Your task to perform on an android device: Do I have any events tomorrow? Image 0: 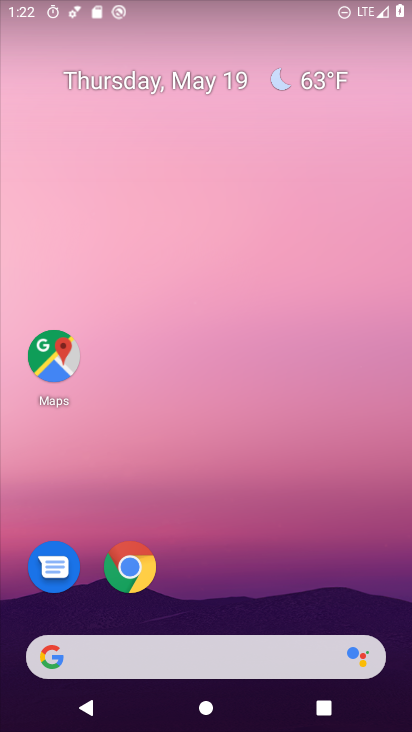
Step 0: press home button
Your task to perform on an android device: Do I have any events tomorrow? Image 1: 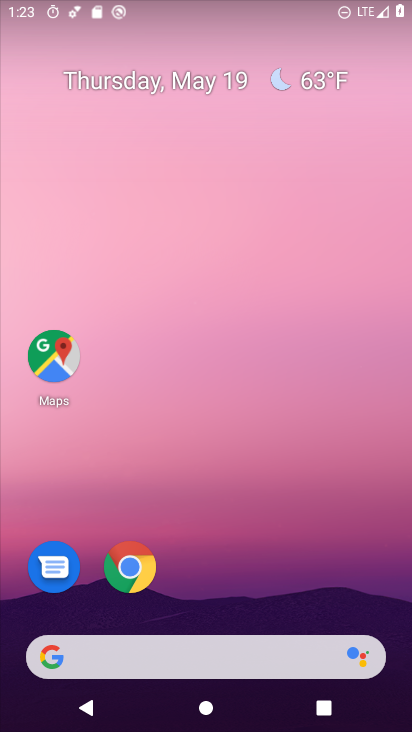
Step 1: drag from (165, 657) to (285, 253)
Your task to perform on an android device: Do I have any events tomorrow? Image 2: 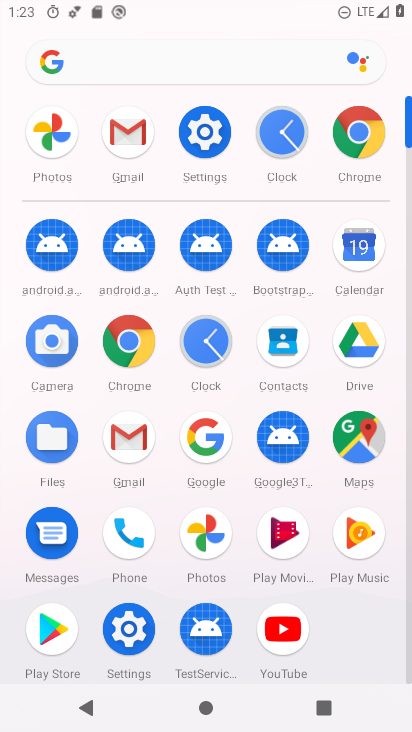
Step 2: click (359, 251)
Your task to perform on an android device: Do I have any events tomorrow? Image 3: 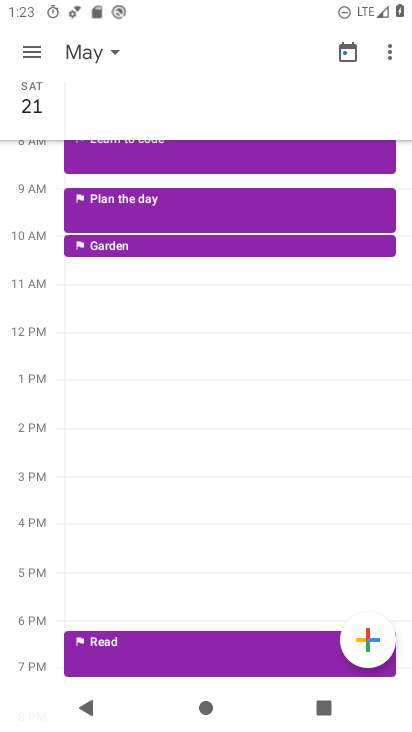
Step 3: click (82, 49)
Your task to perform on an android device: Do I have any events tomorrow? Image 4: 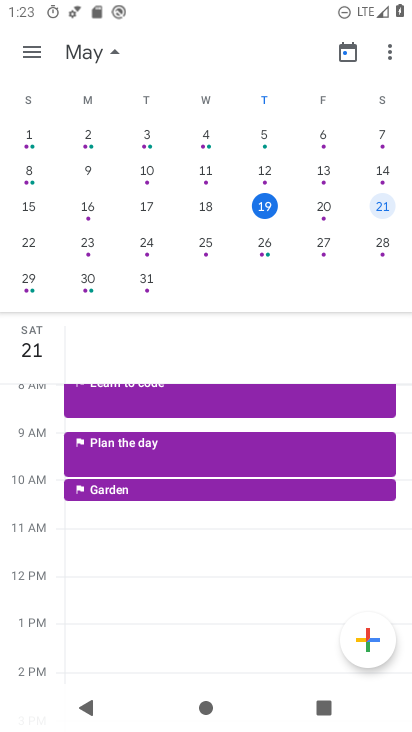
Step 4: click (320, 215)
Your task to perform on an android device: Do I have any events tomorrow? Image 5: 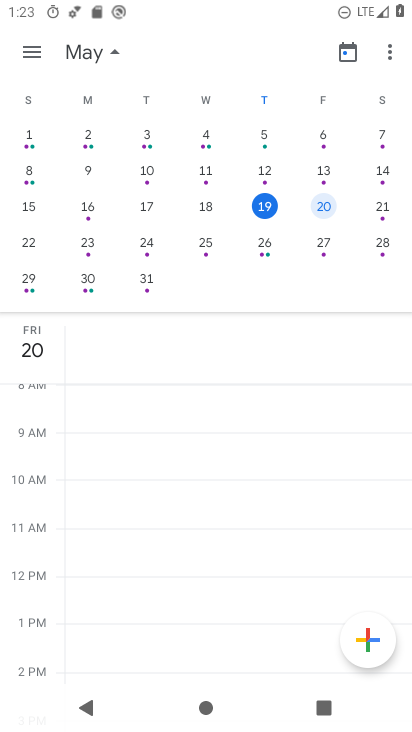
Step 5: click (36, 48)
Your task to perform on an android device: Do I have any events tomorrow? Image 6: 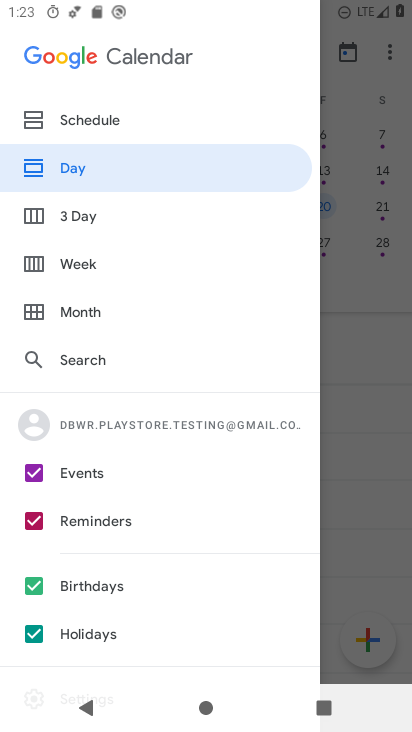
Step 6: click (111, 121)
Your task to perform on an android device: Do I have any events tomorrow? Image 7: 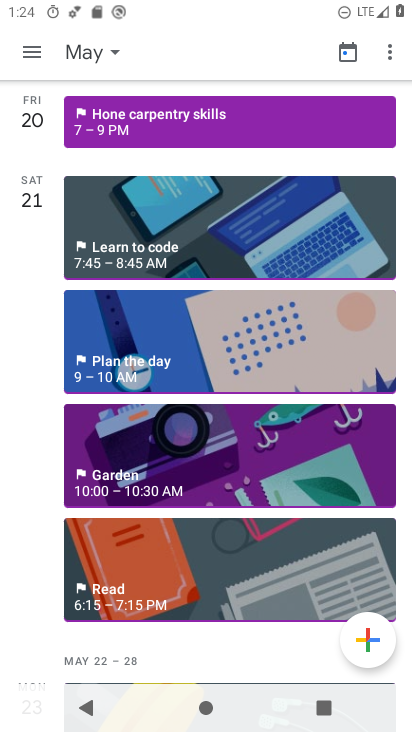
Step 7: click (175, 119)
Your task to perform on an android device: Do I have any events tomorrow? Image 8: 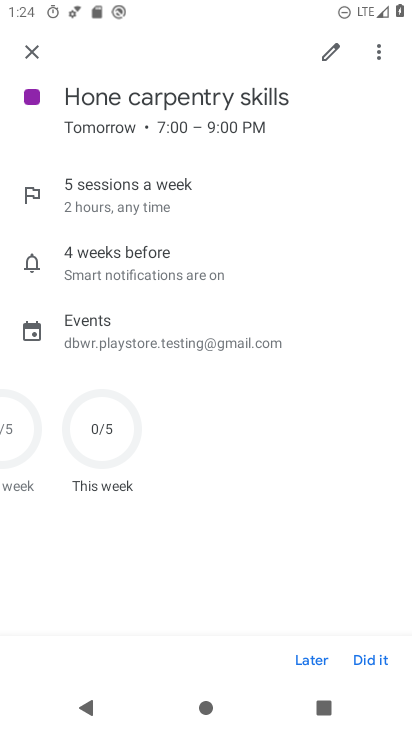
Step 8: task complete